Your task to perform on an android device: choose inbox layout in the gmail app Image 0: 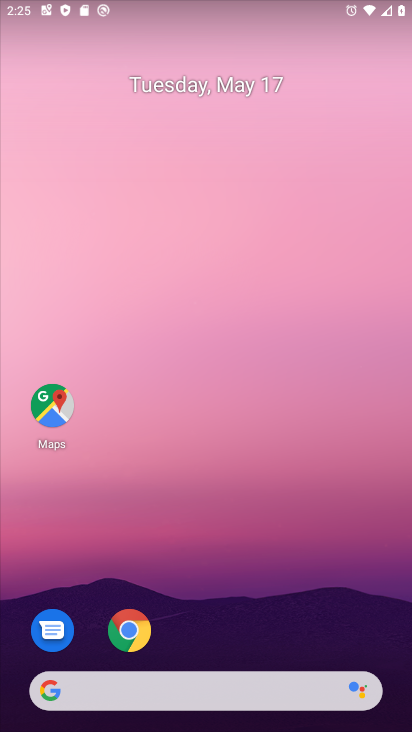
Step 0: drag from (315, 585) to (231, 197)
Your task to perform on an android device: choose inbox layout in the gmail app Image 1: 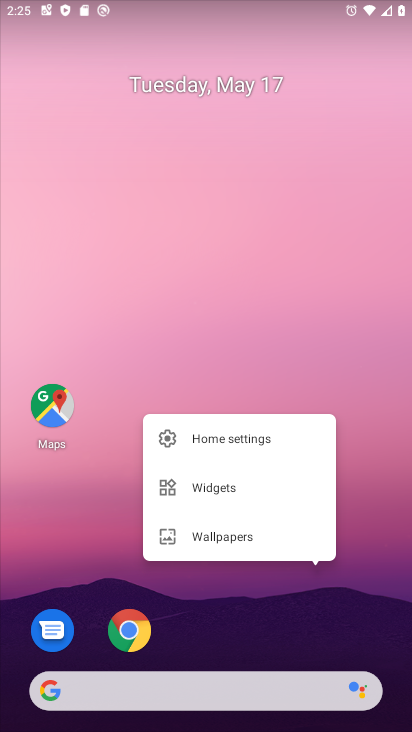
Step 1: drag from (301, 545) to (226, 97)
Your task to perform on an android device: choose inbox layout in the gmail app Image 2: 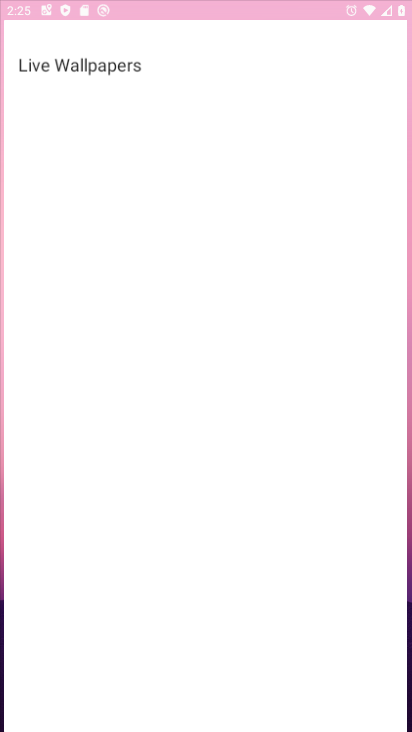
Step 2: drag from (249, 411) to (190, 82)
Your task to perform on an android device: choose inbox layout in the gmail app Image 3: 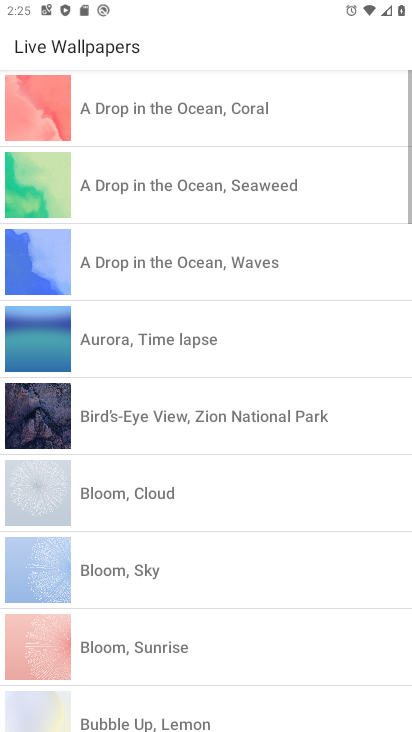
Step 3: press back button
Your task to perform on an android device: choose inbox layout in the gmail app Image 4: 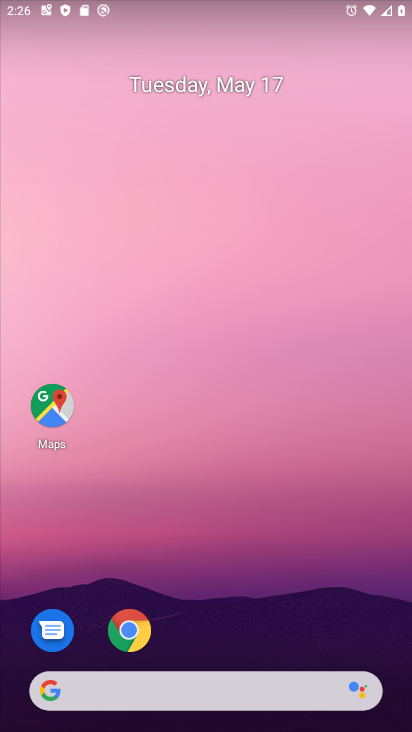
Step 4: drag from (285, 553) to (208, 186)
Your task to perform on an android device: choose inbox layout in the gmail app Image 5: 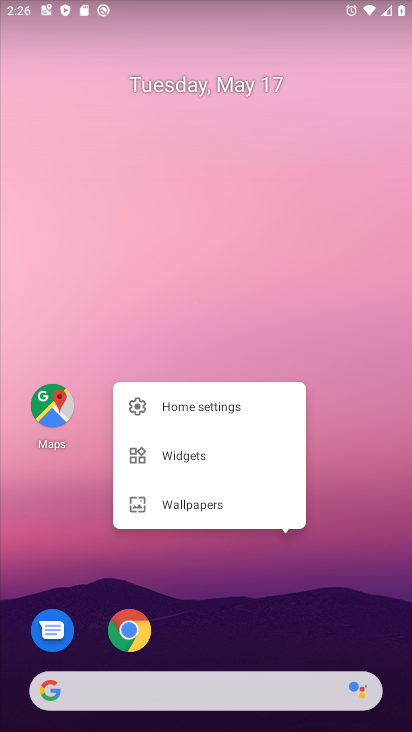
Step 5: drag from (236, 476) to (181, 159)
Your task to perform on an android device: choose inbox layout in the gmail app Image 6: 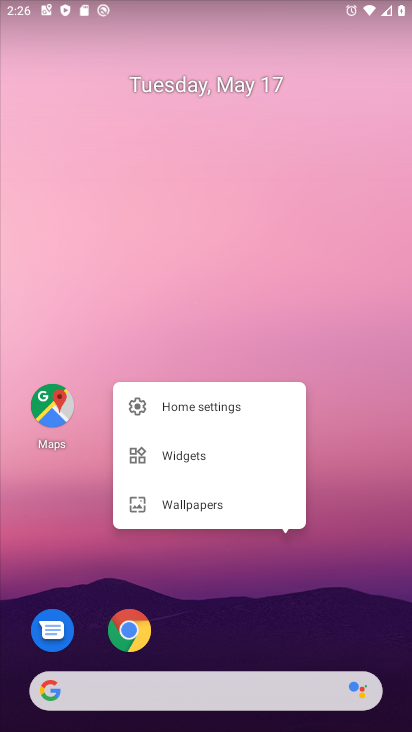
Step 6: drag from (273, 457) to (175, 105)
Your task to perform on an android device: choose inbox layout in the gmail app Image 7: 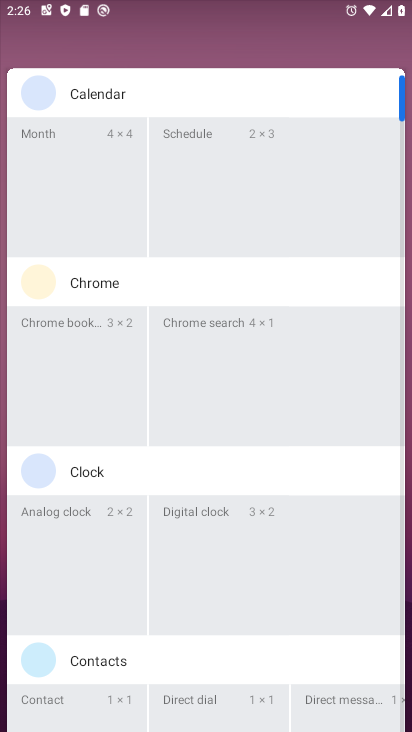
Step 7: drag from (368, 562) to (276, 180)
Your task to perform on an android device: choose inbox layout in the gmail app Image 8: 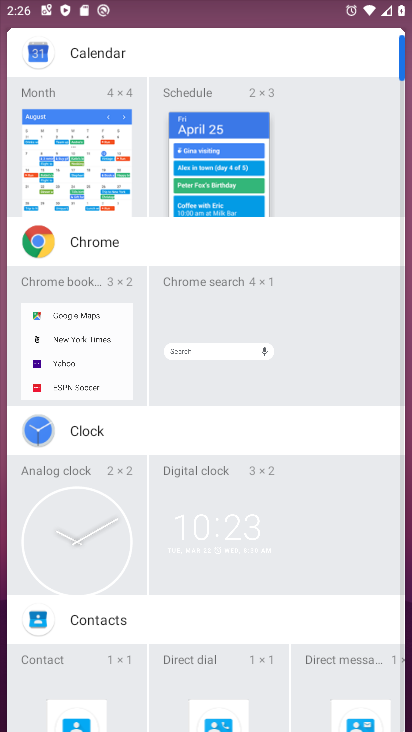
Step 8: drag from (354, 548) to (230, 199)
Your task to perform on an android device: choose inbox layout in the gmail app Image 9: 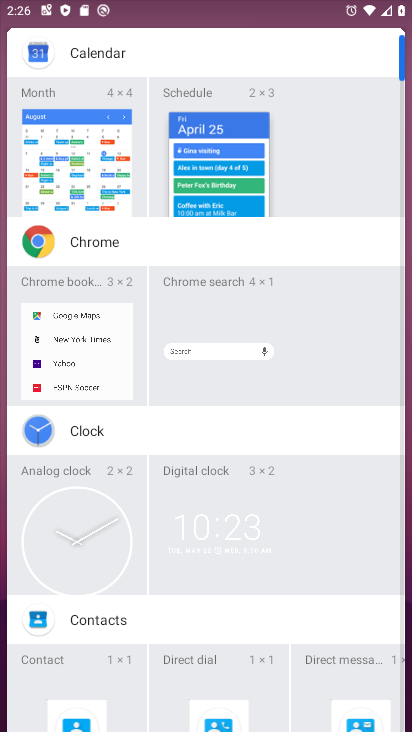
Step 9: press back button
Your task to perform on an android device: choose inbox layout in the gmail app Image 10: 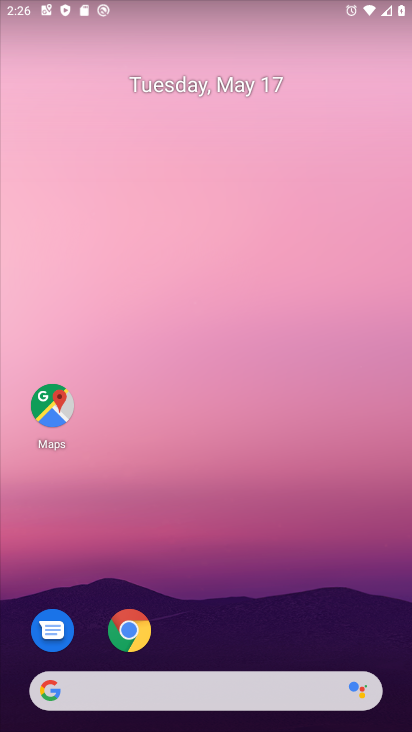
Step 10: drag from (270, 603) to (197, 194)
Your task to perform on an android device: choose inbox layout in the gmail app Image 11: 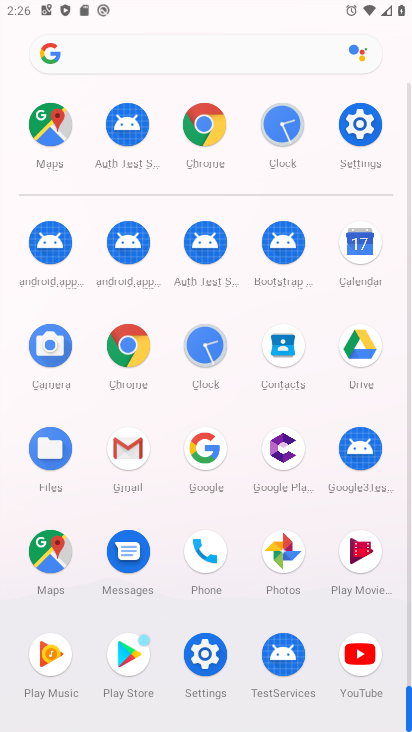
Step 11: click (138, 447)
Your task to perform on an android device: choose inbox layout in the gmail app Image 12: 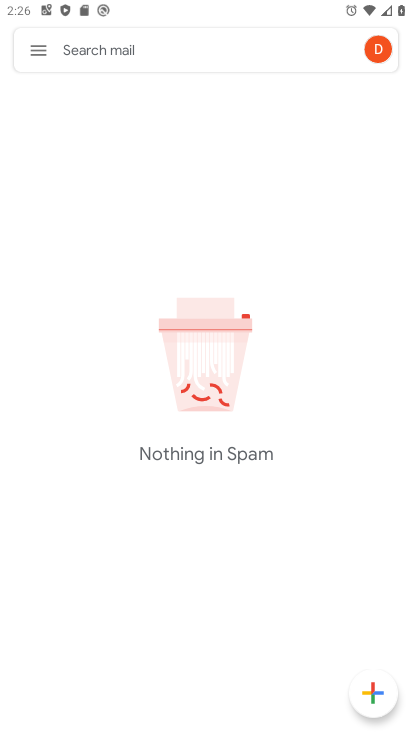
Step 12: click (46, 50)
Your task to perform on an android device: choose inbox layout in the gmail app Image 13: 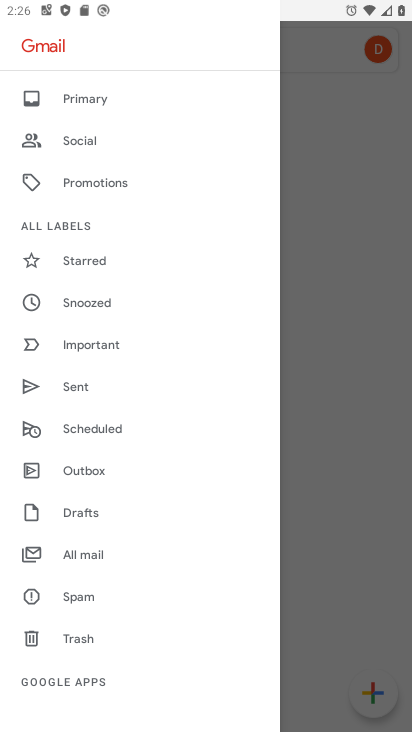
Step 13: click (67, 544)
Your task to perform on an android device: choose inbox layout in the gmail app Image 14: 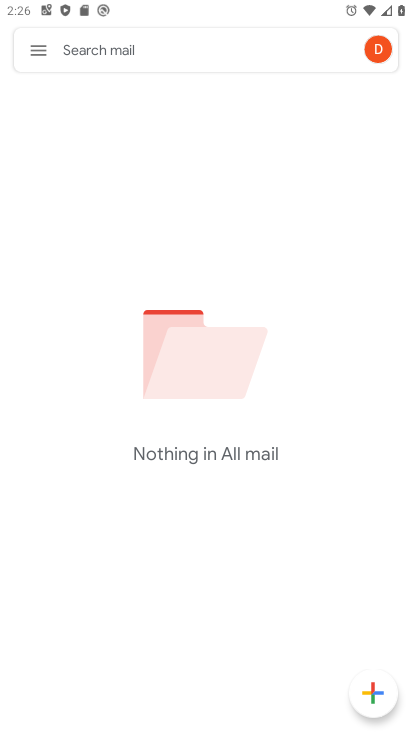
Step 14: task complete